Your task to perform on an android device: set the stopwatch Image 0: 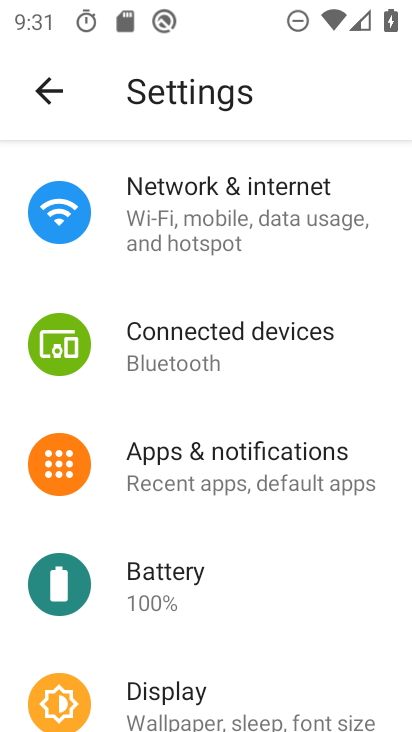
Step 0: press home button
Your task to perform on an android device: set the stopwatch Image 1: 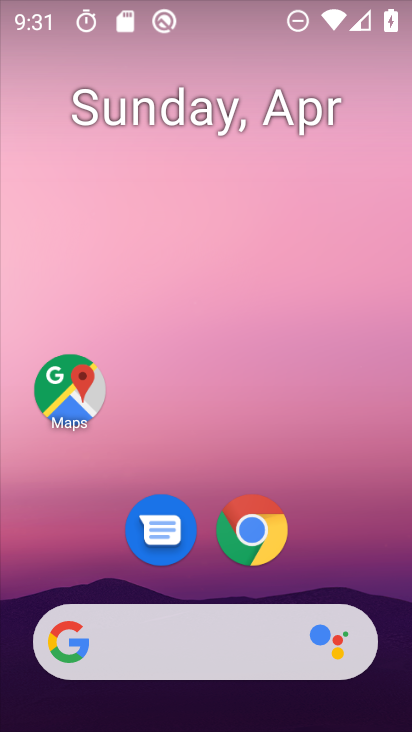
Step 1: drag from (382, 576) to (391, 0)
Your task to perform on an android device: set the stopwatch Image 2: 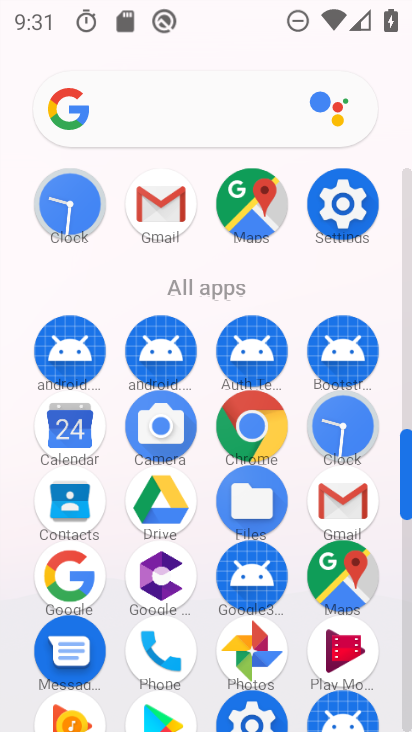
Step 2: click (74, 208)
Your task to perform on an android device: set the stopwatch Image 3: 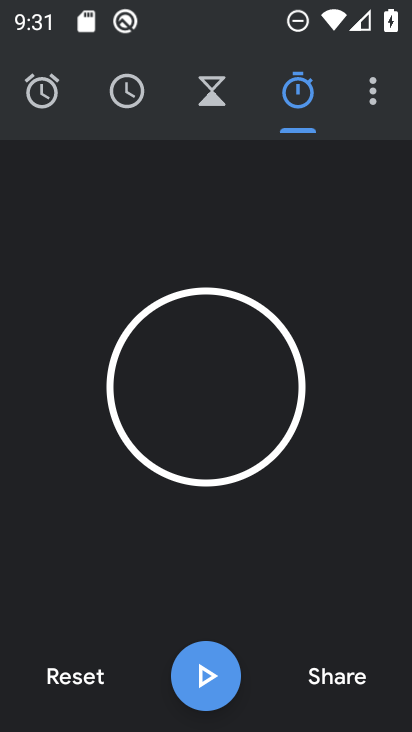
Step 3: click (77, 673)
Your task to perform on an android device: set the stopwatch Image 4: 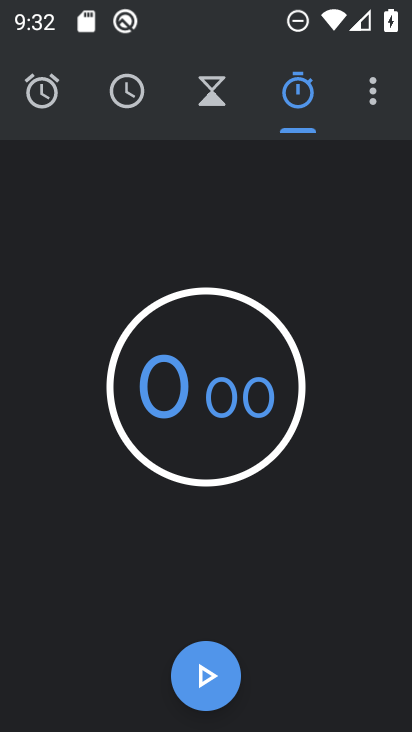
Step 4: click (214, 688)
Your task to perform on an android device: set the stopwatch Image 5: 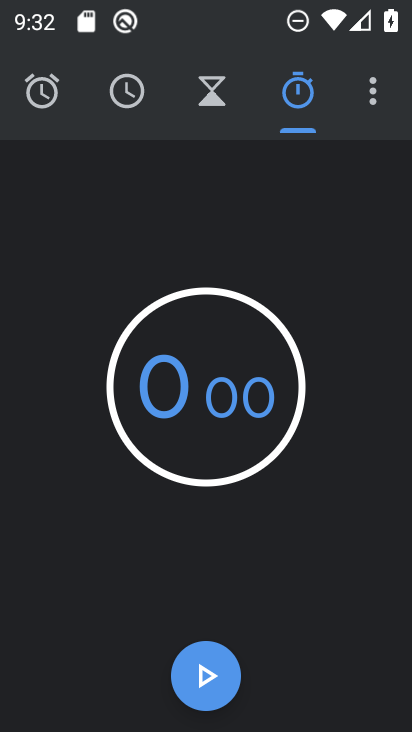
Step 5: click (206, 673)
Your task to perform on an android device: set the stopwatch Image 6: 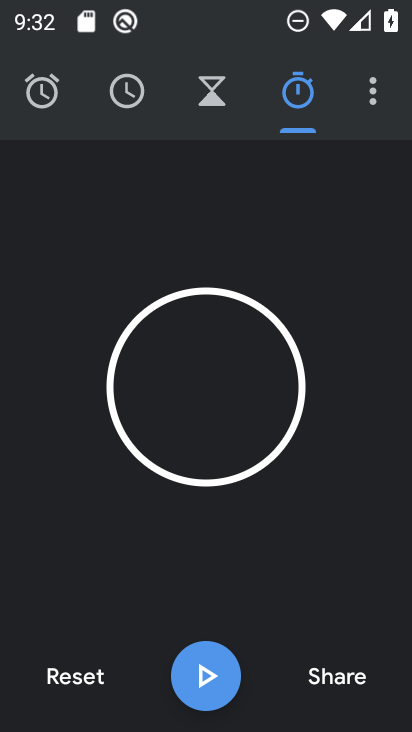
Step 6: click (206, 674)
Your task to perform on an android device: set the stopwatch Image 7: 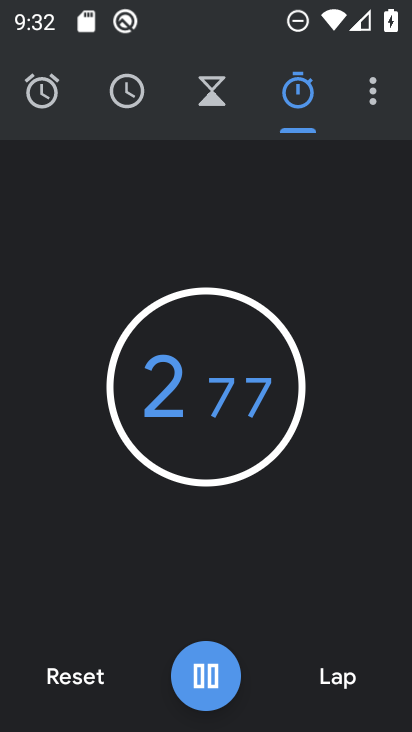
Step 7: click (200, 678)
Your task to perform on an android device: set the stopwatch Image 8: 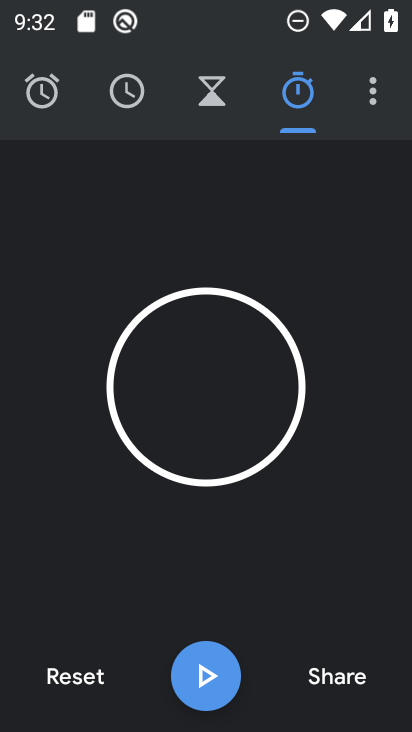
Step 8: task complete